Your task to perform on an android device: add a contact Image 0: 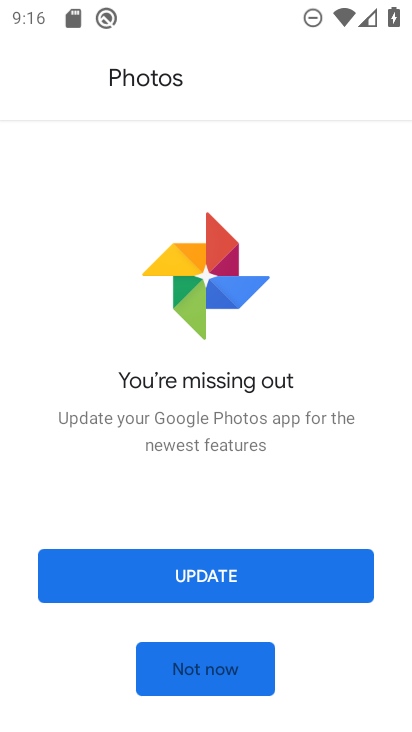
Step 0: press home button
Your task to perform on an android device: add a contact Image 1: 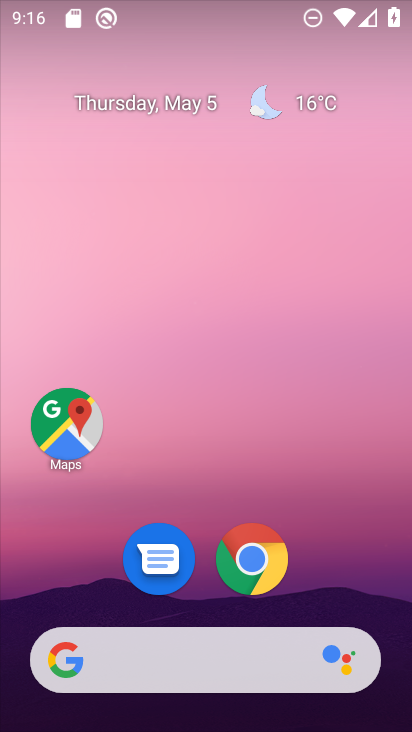
Step 1: drag from (362, 586) to (344, 14)
Your task to perform on an android device: add a contact Image 2: 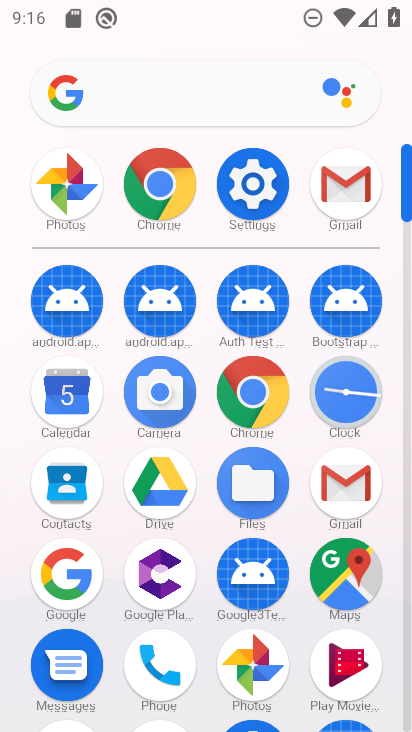
Step 2: click (59, 489)
Your task to perform on an android device: add a contact Image 3: 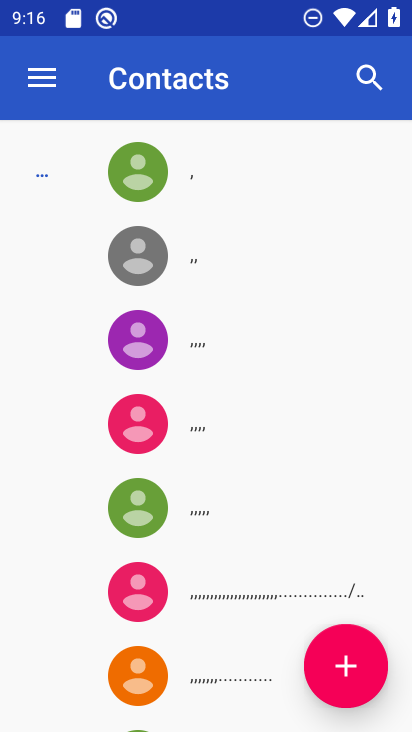
Step 3: click (350, 671)
Your task to perform on an android device: add a contact Image 4: 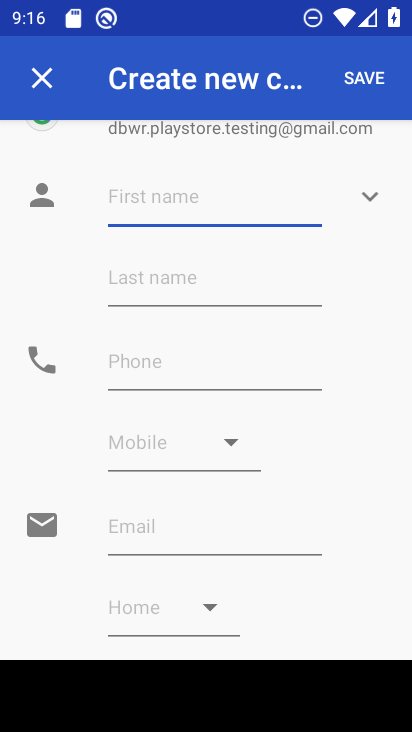
Step 4: click (131, 204)
Your task to perform on an android device: add a contact Image 5: 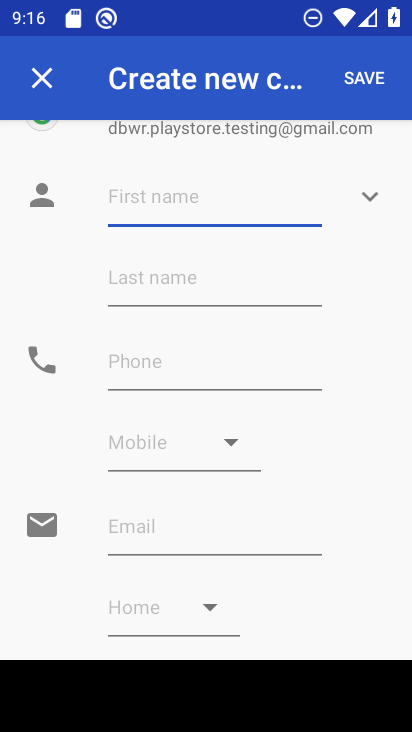
Step 5: type "kriti"
Your task to perform on an android device: add a contact Image 6: 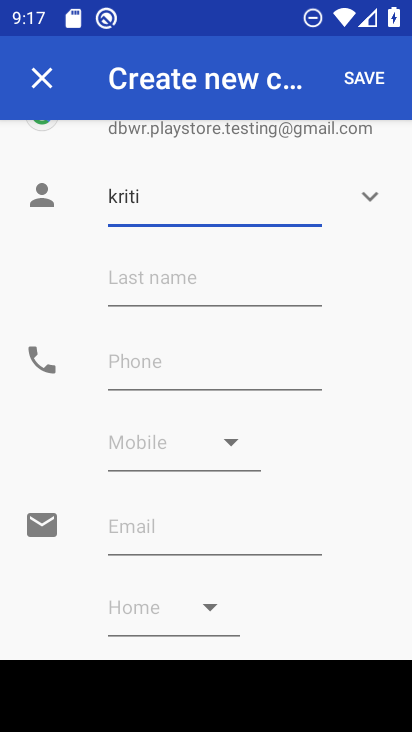
Step 6: click (132, 356)
Your task to perform on an android device: add a contact Image 7: 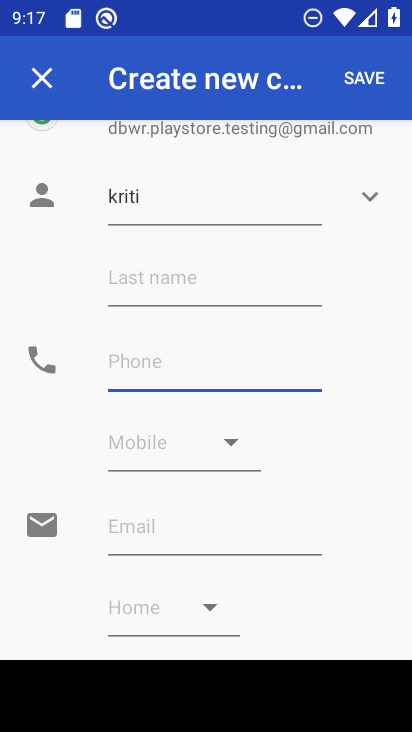
Step 7: type "9876543256"
Your task to perform on an android device: add a contact Image 8: 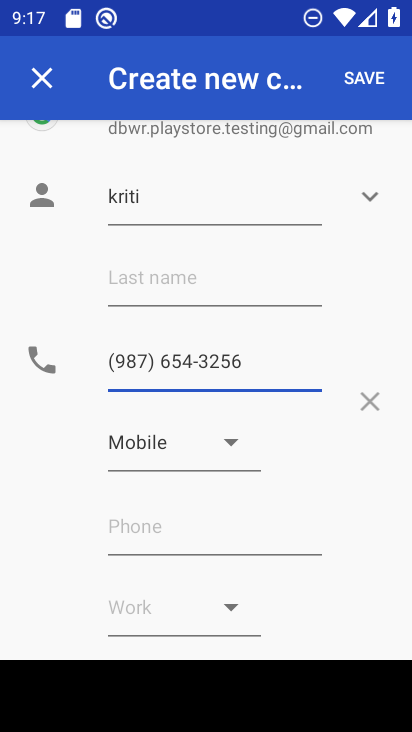
Step 8: click (385, 82)
Your task to perform on an android device: add a contact Image 9: 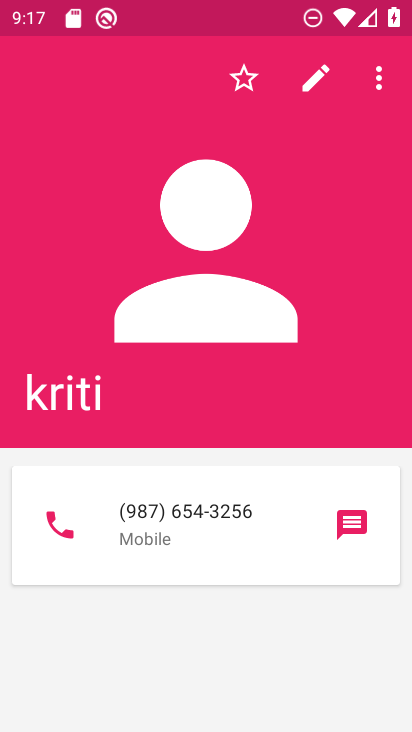
Step 9: task complete